Your task to perform on an android device: What's on my calendar tomorrow? Image 0: 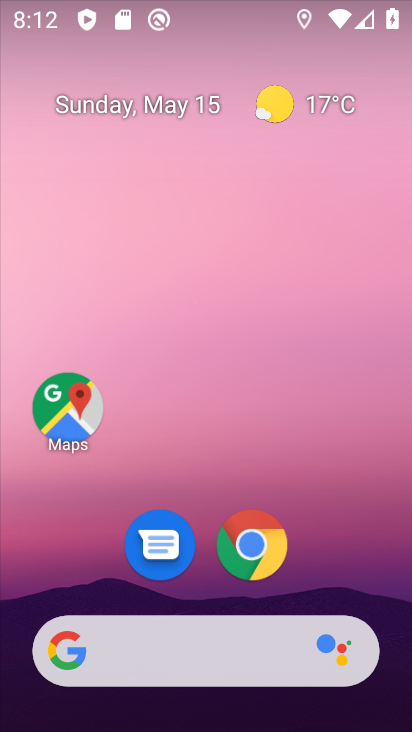
Step 0: drag from (295, 606) to (269, 445)
Your task to perform on an android device: What's on my calendar tomorrow? Image 1: 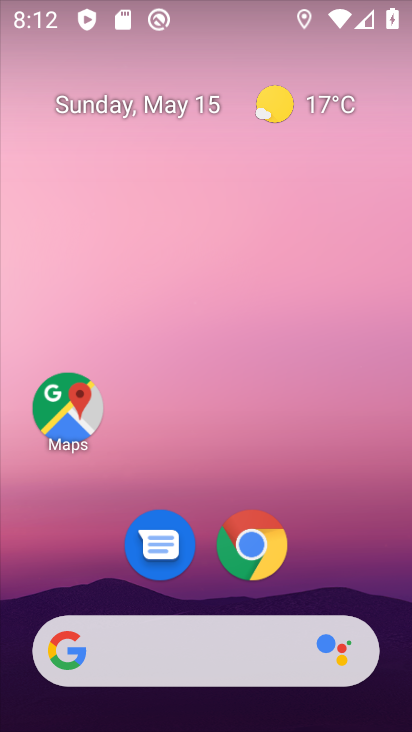
Step 1: drag from (328, 557) to (277, 14)
Your task to perform on an android device: What's on my calendar tomorrow? Image 2: 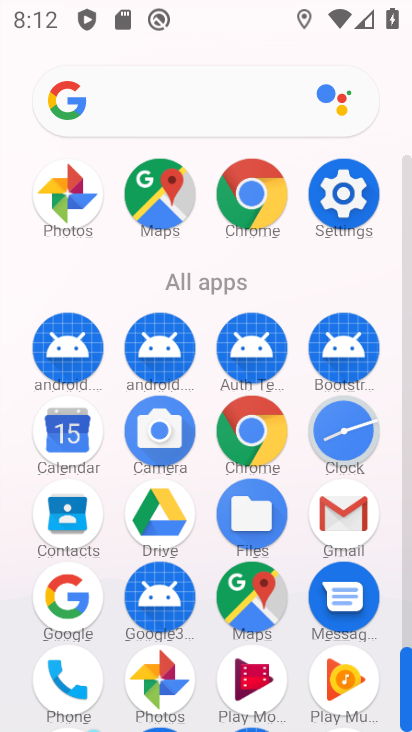
Step 2: click (57, 468)
Your task to perform on an android device: What's on my calendar tomorrow? Image 3: 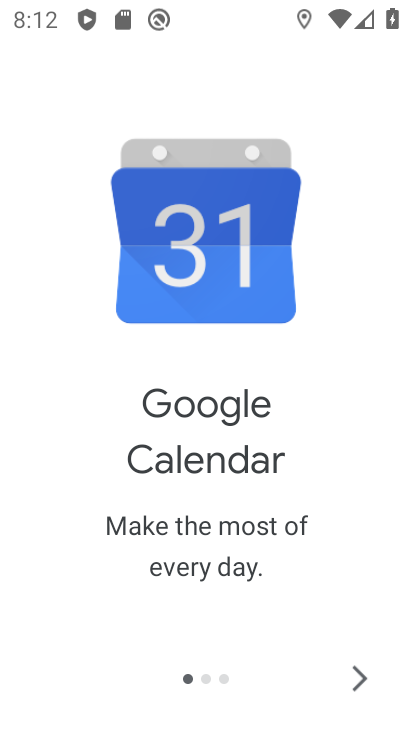
Step 3: click (355, 671)
Your task to perform on an android device: What's on my calendar tomorrow? Image 4: 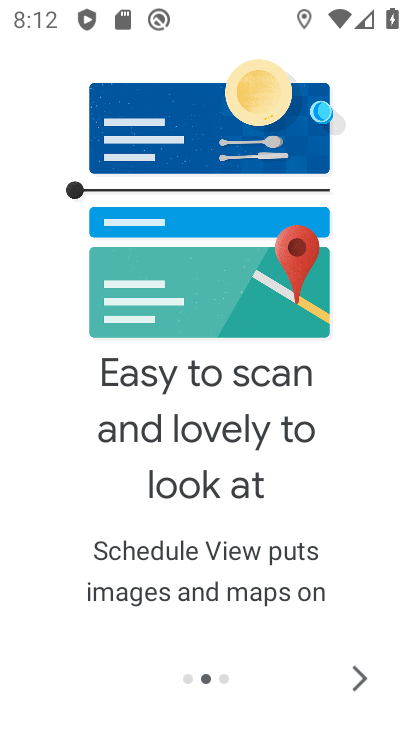
Step 4: click (355, 671)
Your task to perform on an android device: What's on my calendar tomorrow? Image 5: 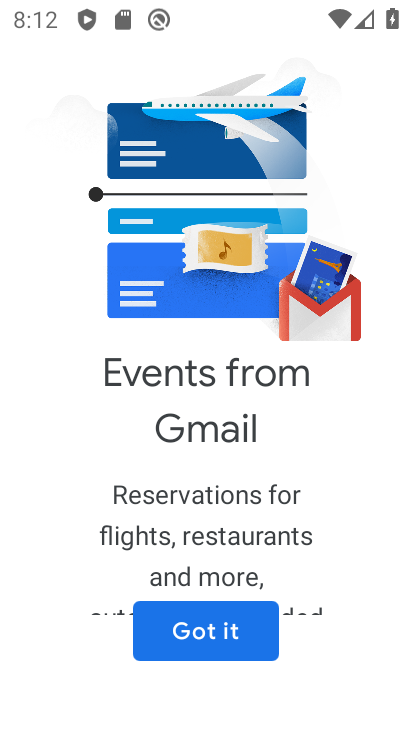
Step 5: click (355, 671)
Your task to perform on an android device: What's on my calendar tomorrow? Image 6: 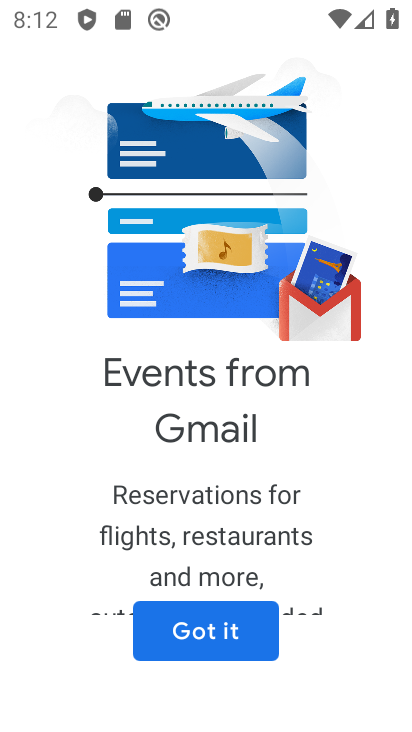
Step 6: click (187, 622)
Your task to perform on an android device: What's on my calendar tomorrow? Image 7: 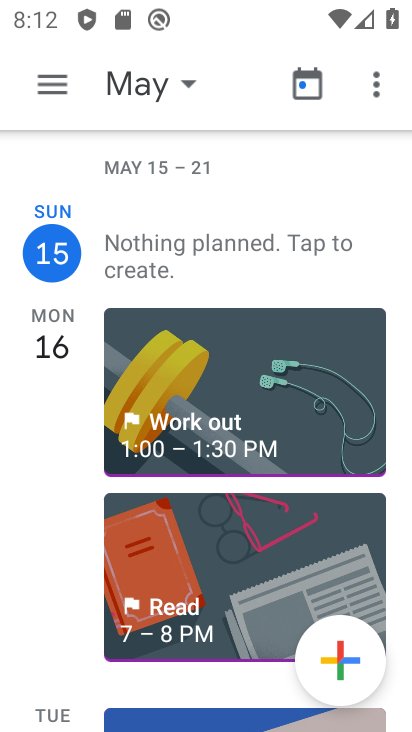
Step 7: click (134, 93)
Your task to perform on an android device: What's on my calendar tomorrow? Image 8: 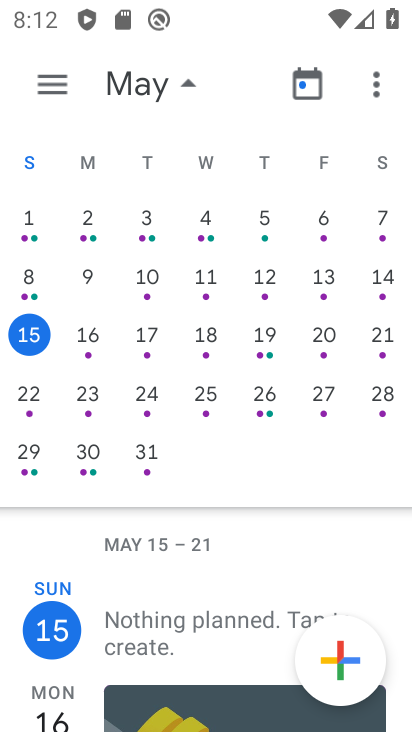
Step 8: click (89, 337)
Your task to perform on an android device: What's on my calendar tomorrow? Image 9: 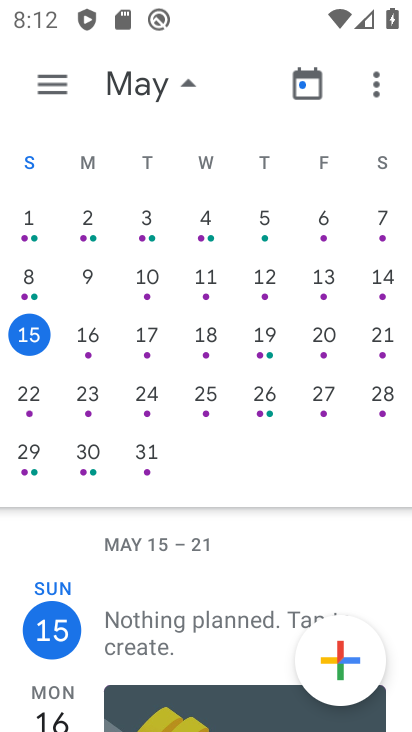
Step 9: click (94, 341)
Your task to perform on an android device: What's on my calendar tomorrow? Image 10: 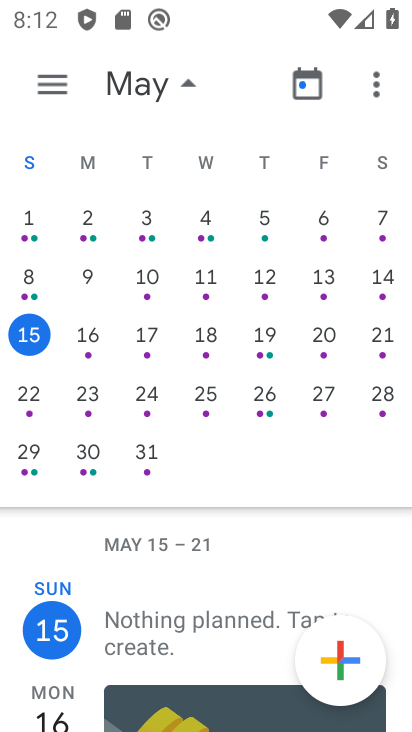
Step 10: task complete